Your task to perform on an android device: change the clock display to show seconds Image 0: 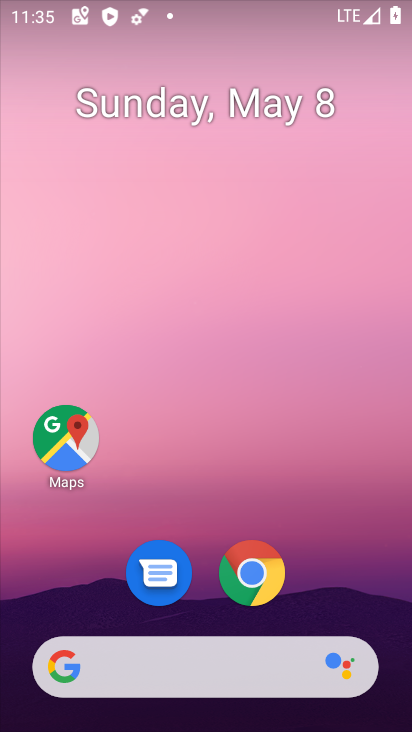
Step 0: drag from (363, 564) to (294, 4)
Your task to perform on an android device: change the clock display to show seconds Image 1: 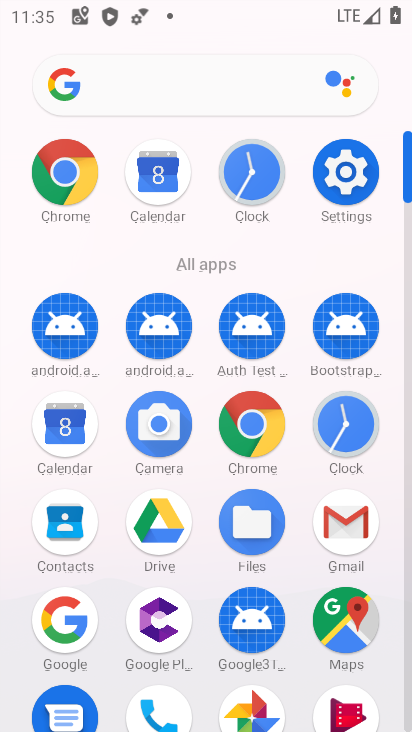
Step 1: click (346, 420)
Your task to perform on an android device: change the clock display to show seconds Image 2: 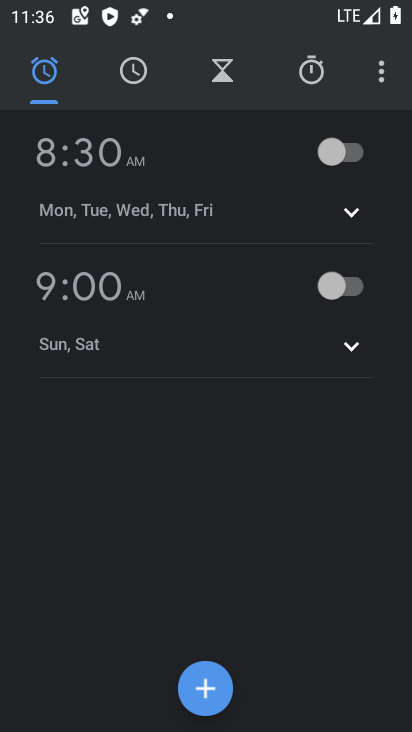
Step 2: drag from (378, 74) to (285, 135)
Your task to perform on an android device: change the clock display to show seconds Image 3: 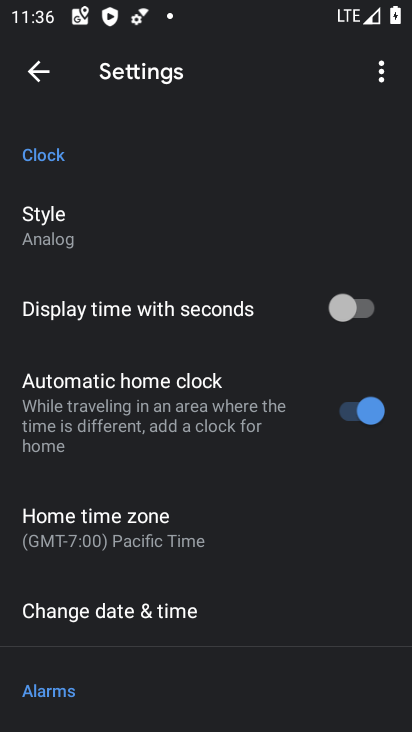
Step 3: click (362, 304)
Your task to perform on an android device: change the clock display to show seconds Image 4: 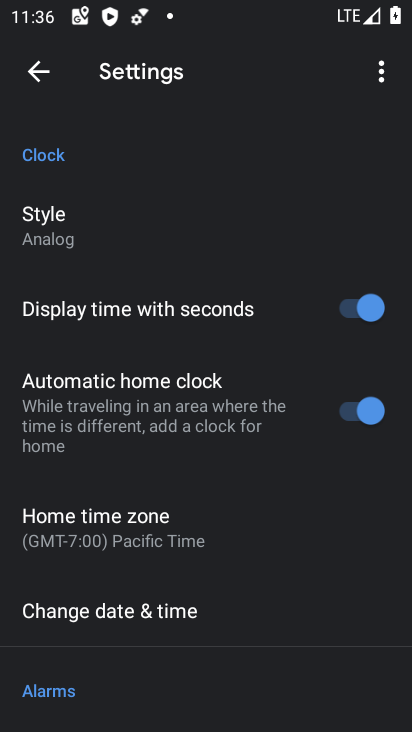
Step 4: task complete